Your task to perform on an android device: turn pop-ups off in chrome Image 0: 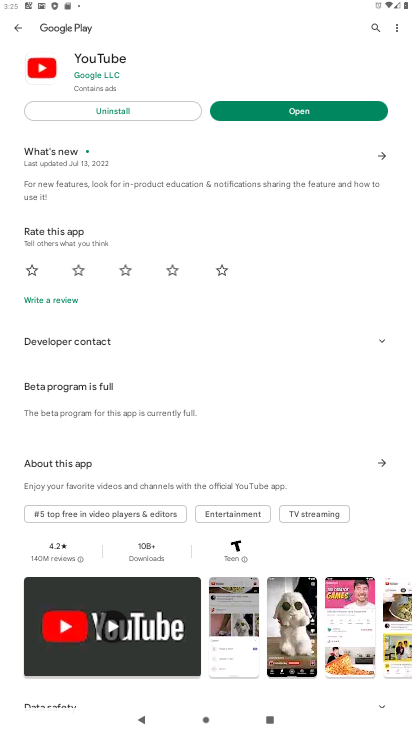
Step 0: press home button
Your task to perform on an android device: turn pop-ups off in chrome Image 1: 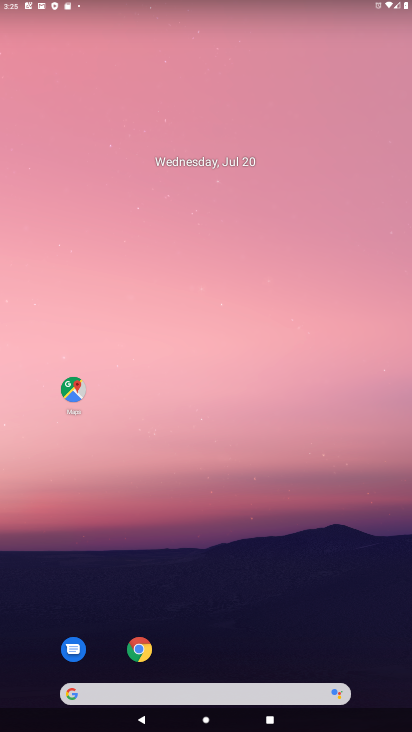
Step 1: click (138, 650)
Your task to perform on an android device: turn pop-ups off in chrome Image 2: 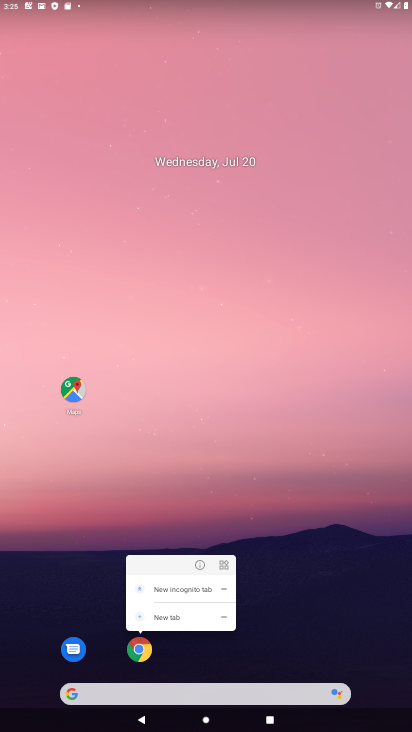
Step 2: click (138, 650)
Your task to perform on an android device: turn pop-ups off in chrome Image 3: 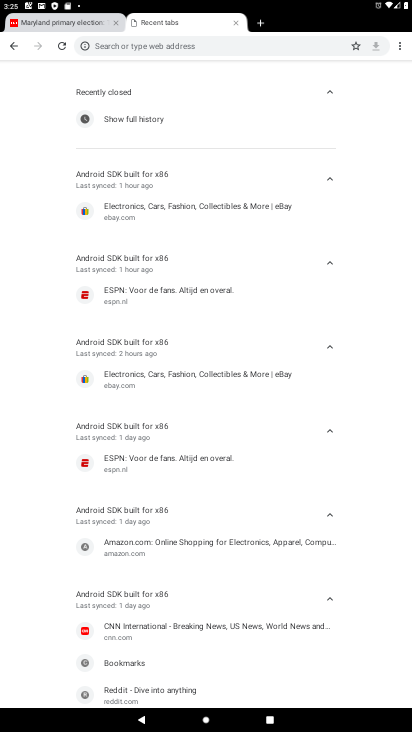
Step 3: click (399, 45)
Your task to perform on an android device: turn pop-ups off in chrome Image 4: 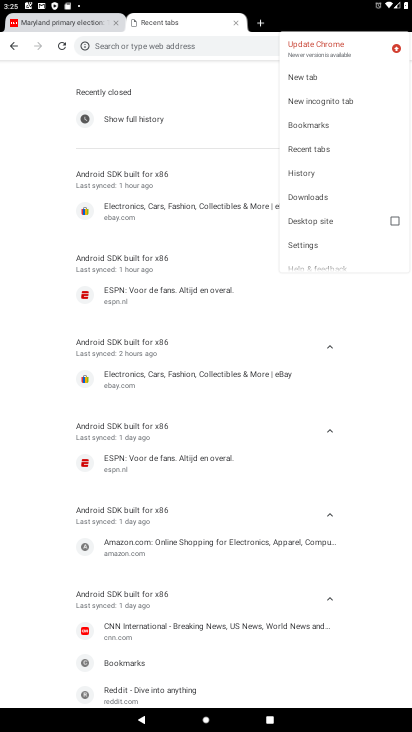
Step 4: click (308, 246)
Your task to perform on an android device: turn pop-ups off in chrome Image 5: 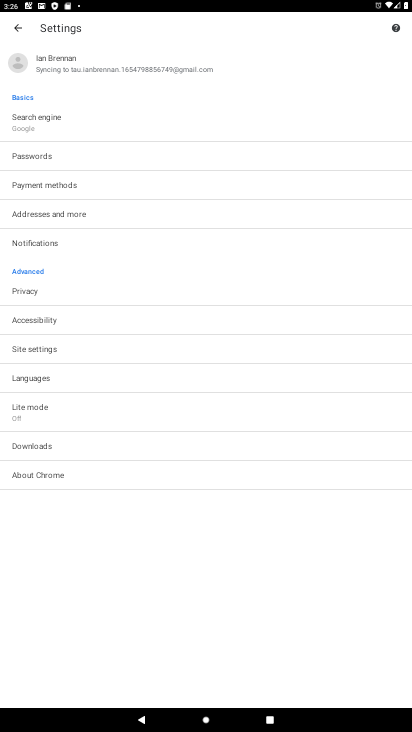
Step 5: click (38, 353)
Your task to perform on an android device: turn pop-ups off in chrome Image 6: 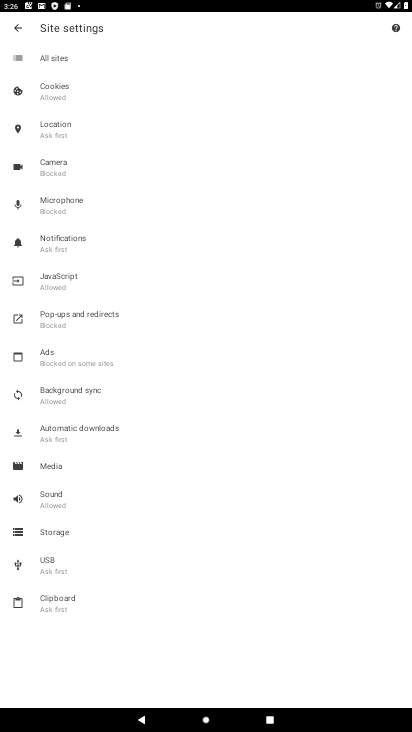
Step 6: click (69, 319)
Your task to perform on an android device: turn pop-ups off in chrome Image 7: 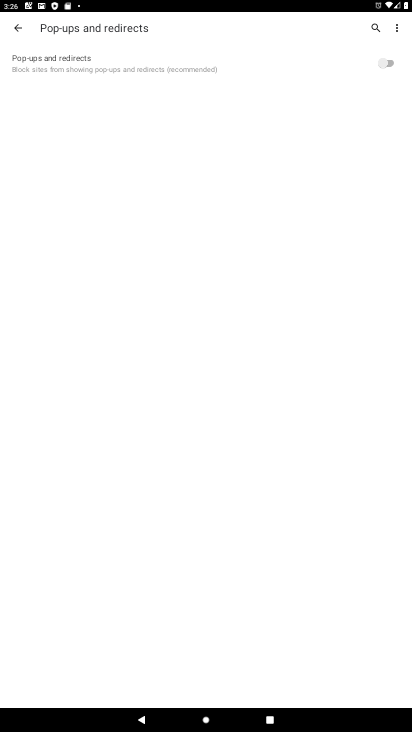
Step 7: task complete